Your task to perform on an android device: Set the phone to "Do not disturb". Image 0: 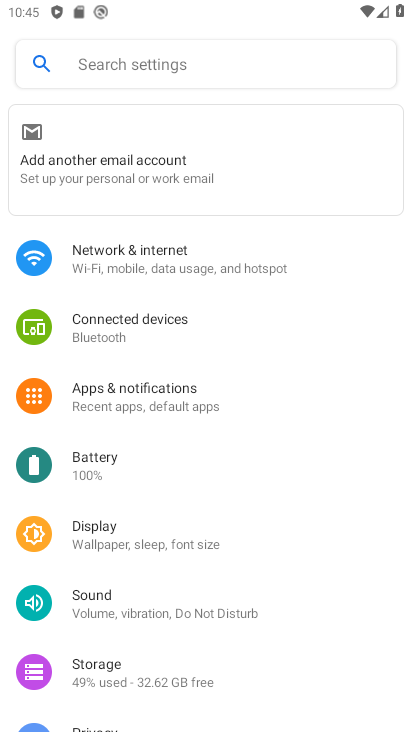
Step 0: drag from (138, 12) to (34, 695)
Your task to perform on an android device: Set the phone to "Do not disturb". Image 1: 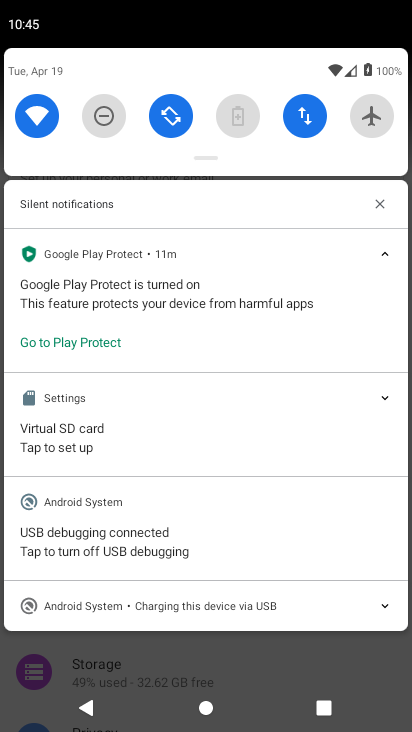
Step 1: click (106, 123)
Your task to perform on an android device: Set the phone to "Do not disturb". Image 2: 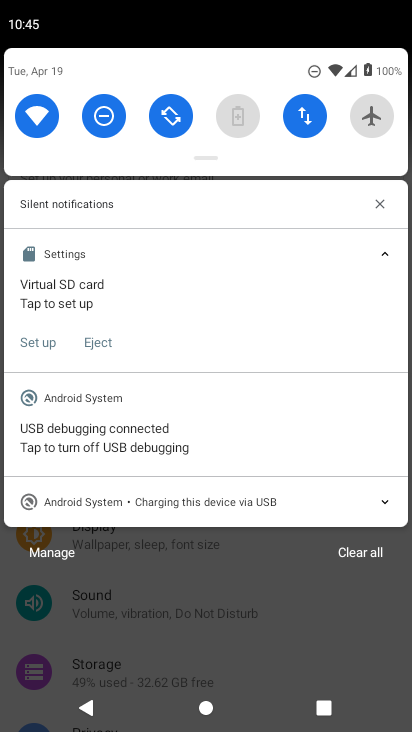
Step 2: task complete